Your task to perform on an android device: change the clock display to show seconds Image 0: 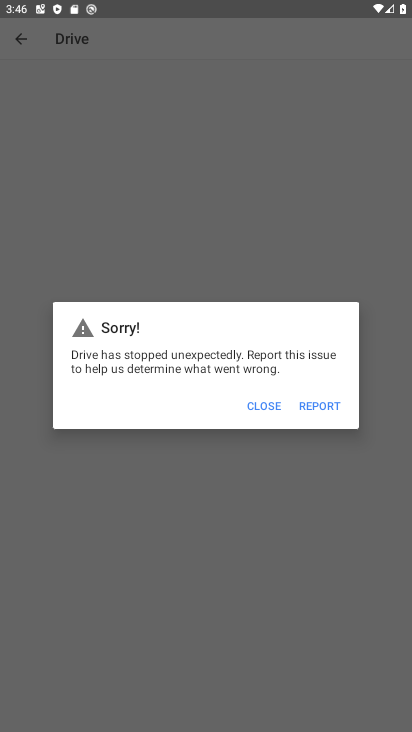
Step 0: press home button
Your task to perform on an android device: change the clock display to show seconds Image 1: 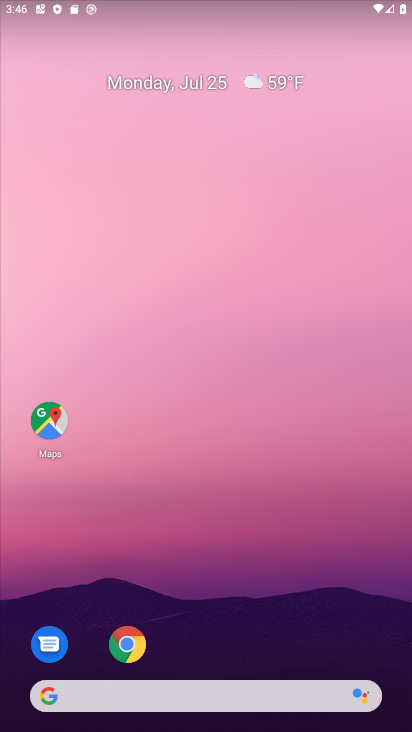
Step 1: drag from (242, 682) to (218, 242)
Your task to perform on an android device: change the clock display to show seconds Image 2: 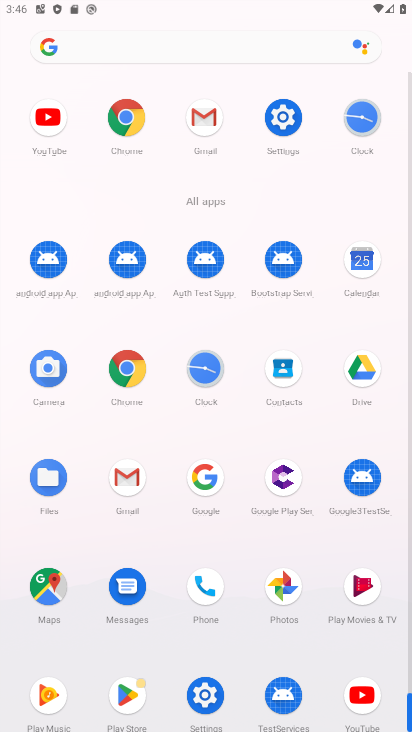
Step 2: click (212, 367)
Your task to perform on an android device: change the clock display to show seconds Image 3: 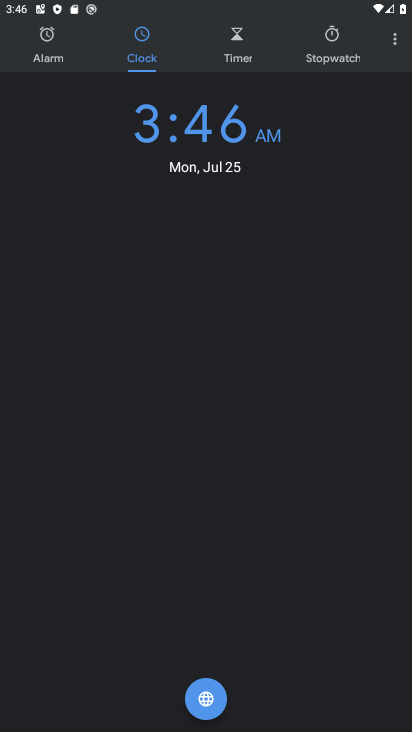
Step 3: click (397, 38)
Your task to perform on an android device: change the clock display to show seconds Image 4: 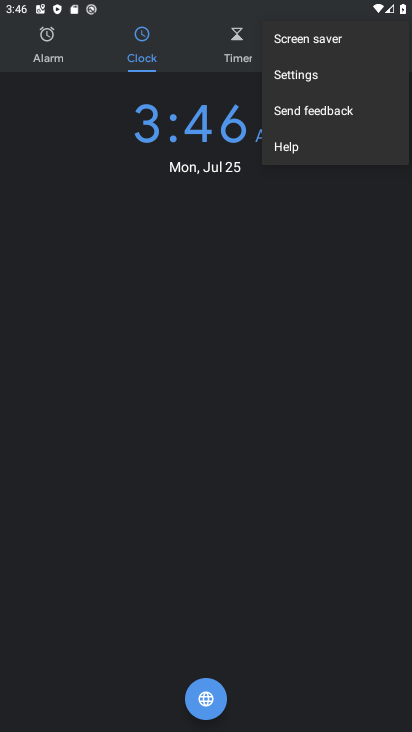
Step 4: click (300, 78)
Your task to perform on an android device: change the clock display to show seconds Image 5: 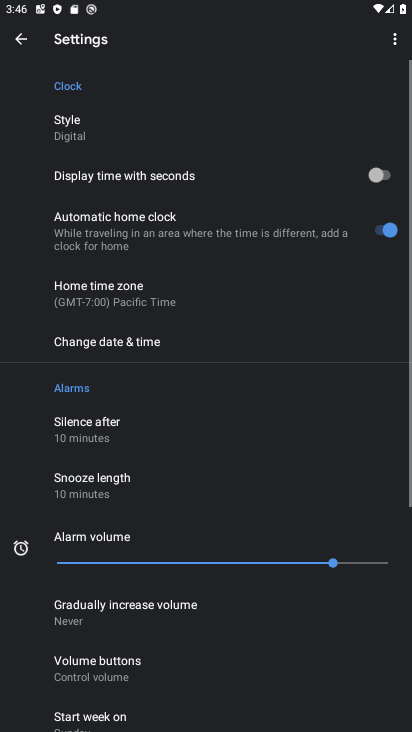
Step 5: click (380, 174)
Your task to perform on an android device: change the clock display to show seconds Image 6: 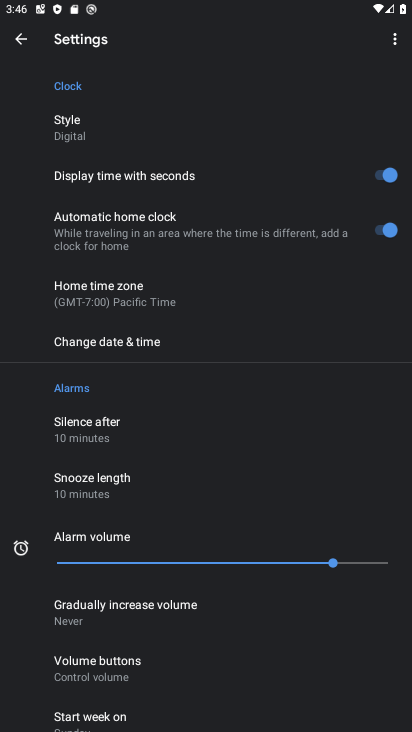
Step 6: task complete